Your task to perform on an android device: check out phone information Image 0: 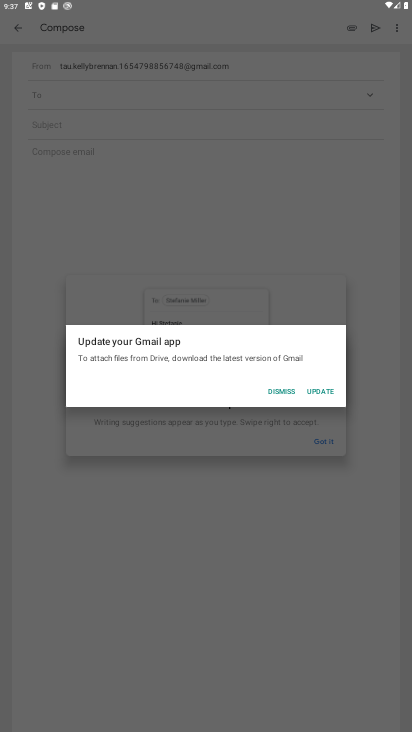
Step 0: press home button
Your task to perform on an android device: check out phone information Image 1: 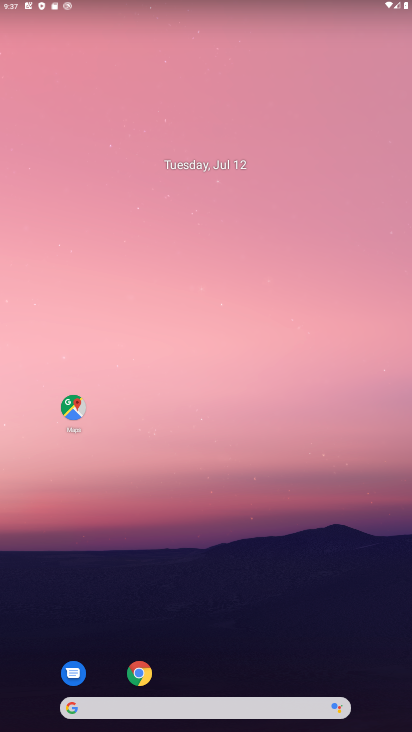
Step 1: drag from (201, 599) to (180, 70)
Your task to perform on an android device: check out phone information Image 2: 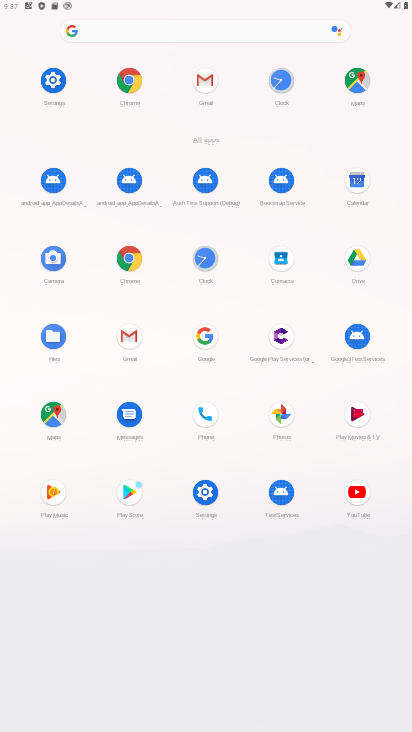
Step 2: click (52, 88)
Your task to perform on an android device: check out phone information Image 3: 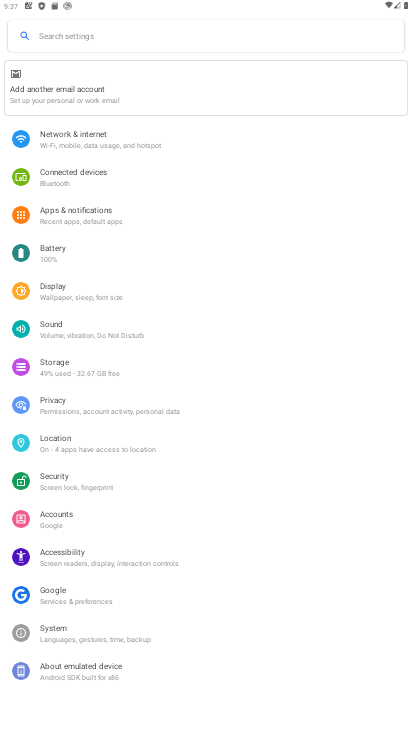
Step 3: click (75, 673)
Your task to perform on an android device: check out phone information Image 4: 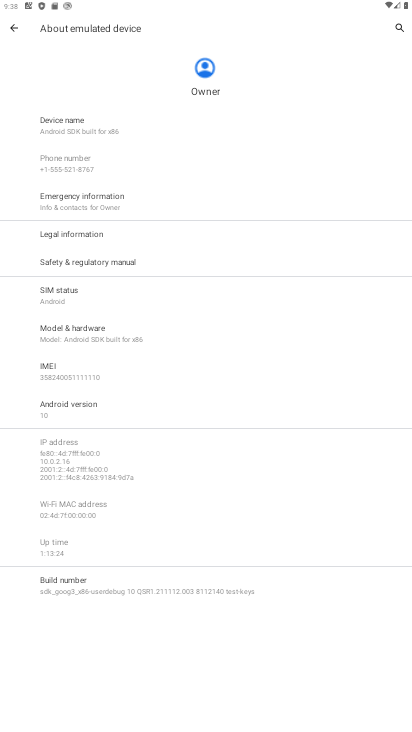
Step 4: task complete